Your task to perform on an android device: Show the shopping cart on newegg.com. Add "razer huntsman" to the cart on newegg.com Image 0: 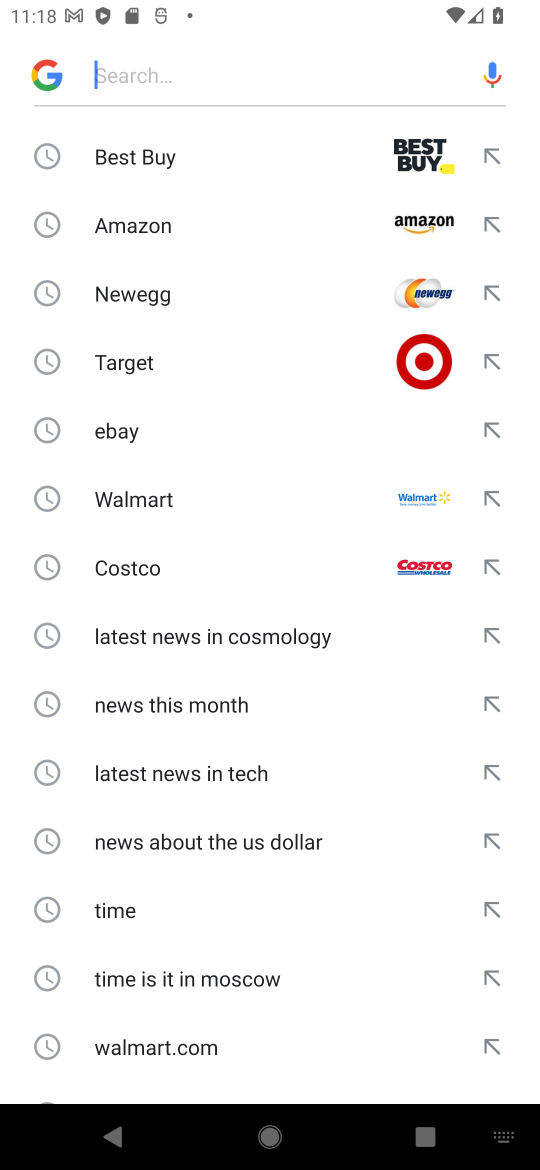
Step 0: click (117, 76)
Your task to perform on an android device: Show the shopping cart on newegg.com. Add "razer huntsman" to the cart on newegg.com Image 1: 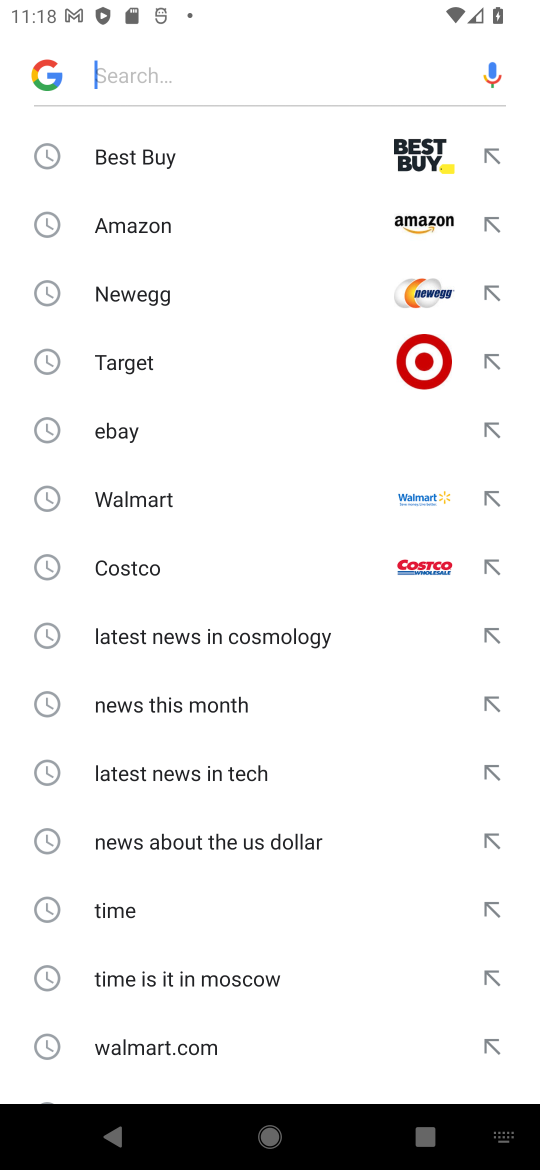
Step 1: type "newegg.com"
Your task to perform on an android device: Show the shopping cart on newegg.com. Add "razer huntsman" to the cart on newegg.com Image 2: 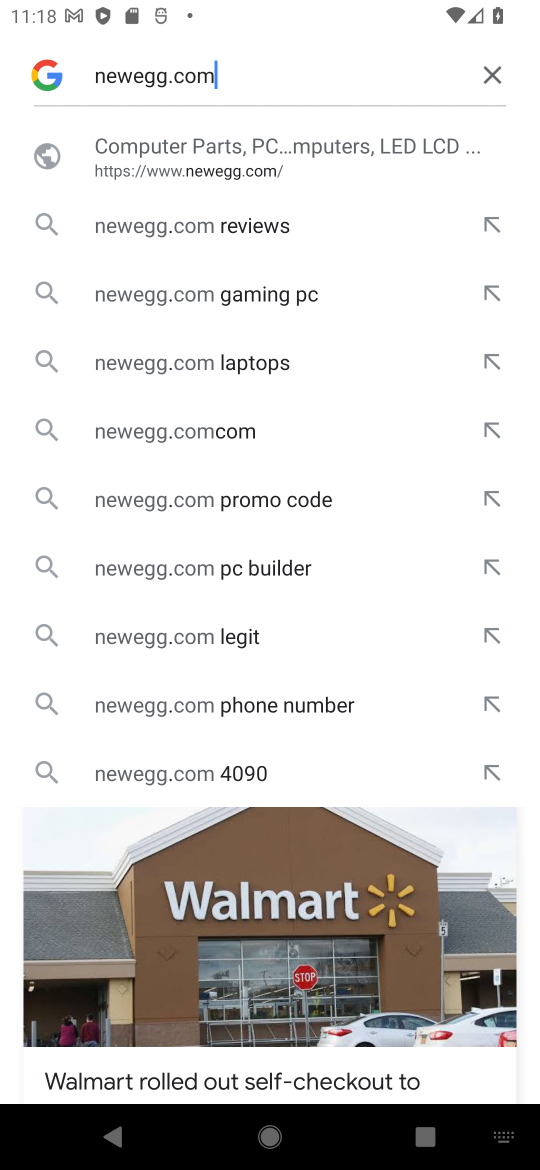
Step 2: click (161, 176)
Your task to perform on an android device: Show the shopping cart on newegg.com. Add "razer huntsman" to the cart on newegg.com Image 3: 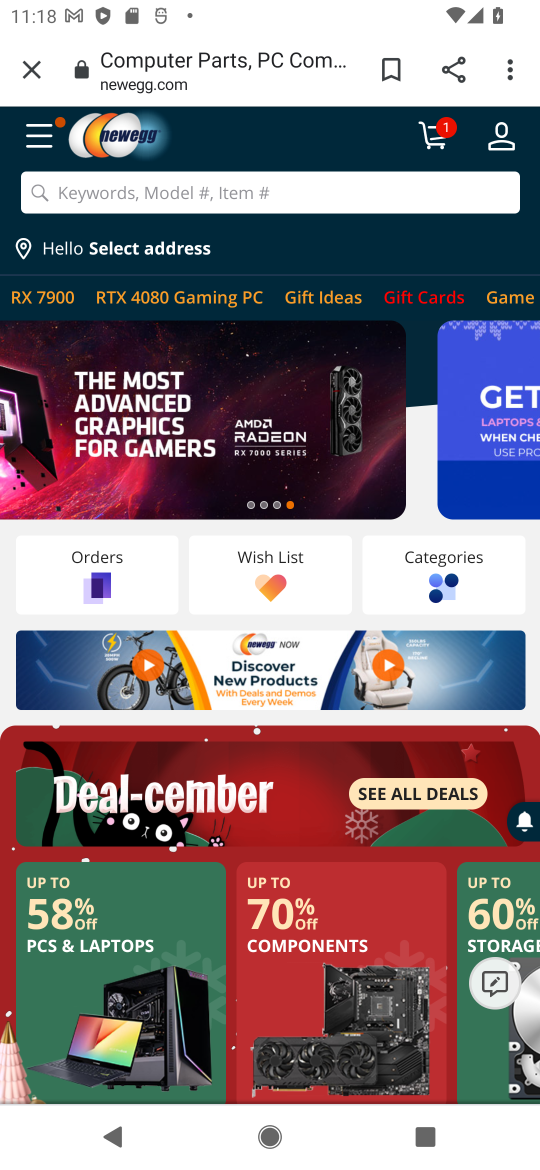
Step 3: click (426, 140)
Your task to perform on an android device: Show the shopping cart on newegg.com. Add "razer huntsman" to the cart on newegg.com Image 4: 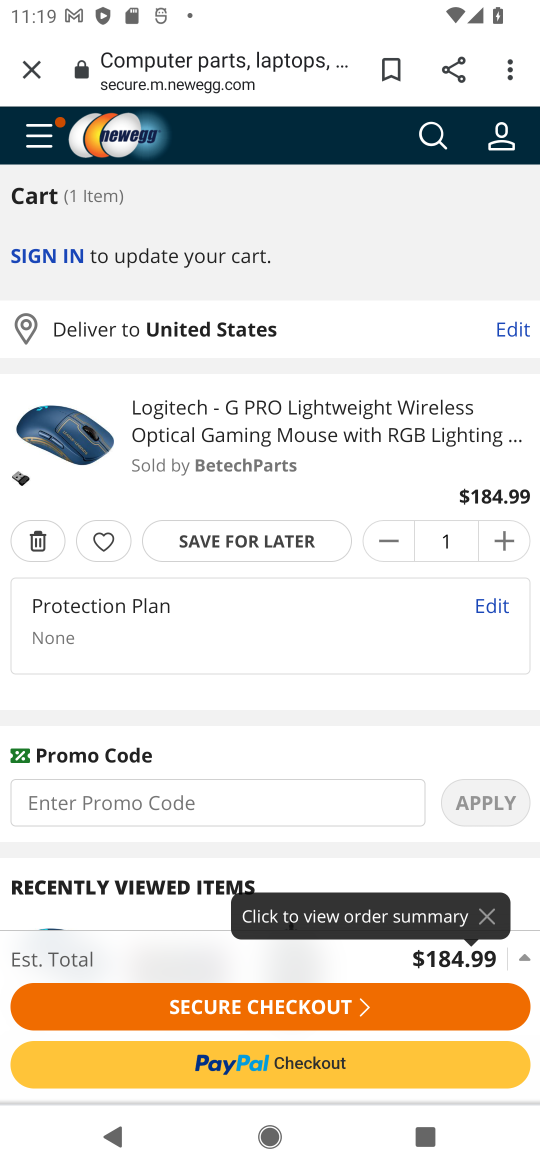
Step 4: click (432, 133)
Your task to perform on an android device: Show the shopping cart on newegg.com. Add "razer huntsman" to the cart on newegg.com Image 5: 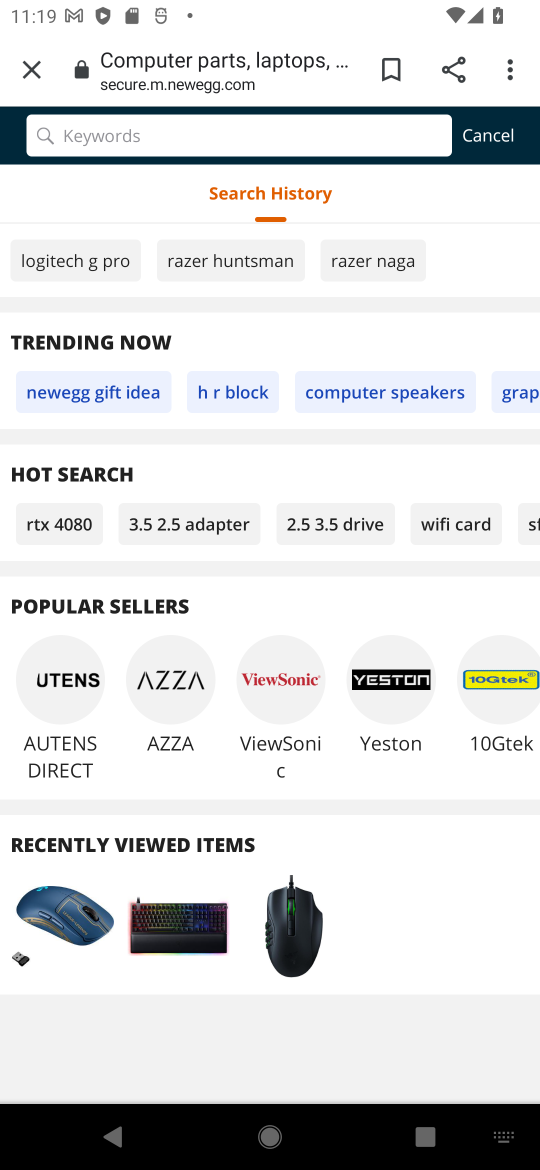
Step 5: type "razer huntsman"
Your task to perform on an android device: Show the shopping cart on newegg.com. Add "razer huntsman" to the cart on newegg.com Image 6: 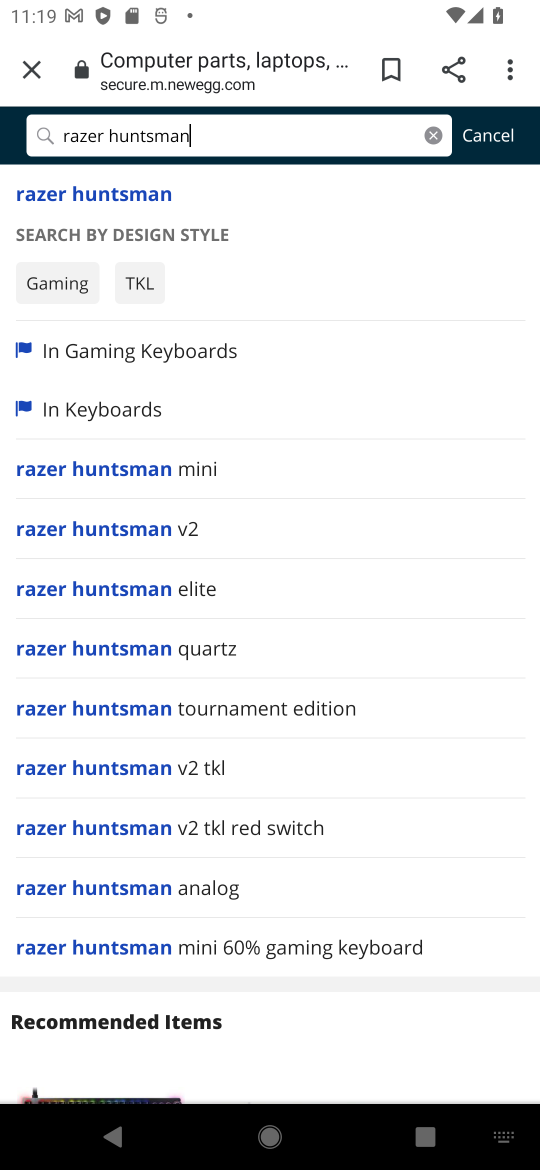
Step 6: click (108, 199)
Your task to perform on an android device: Show the shopping cart on newegg.com. Add "razer huntsman" to the cart on newegg.com Image 7: 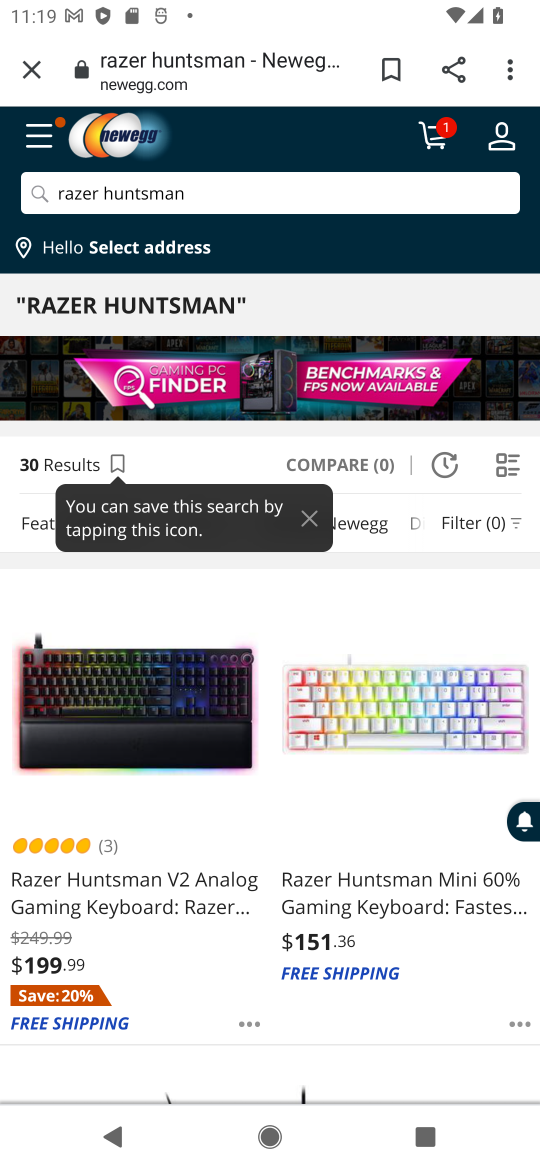
Step 7: click (103, 898)
Your task to perform on an android device: Show the shopping cart on newegg.com. Add "razer huntsman" to the cart on newegg.com Image 8: 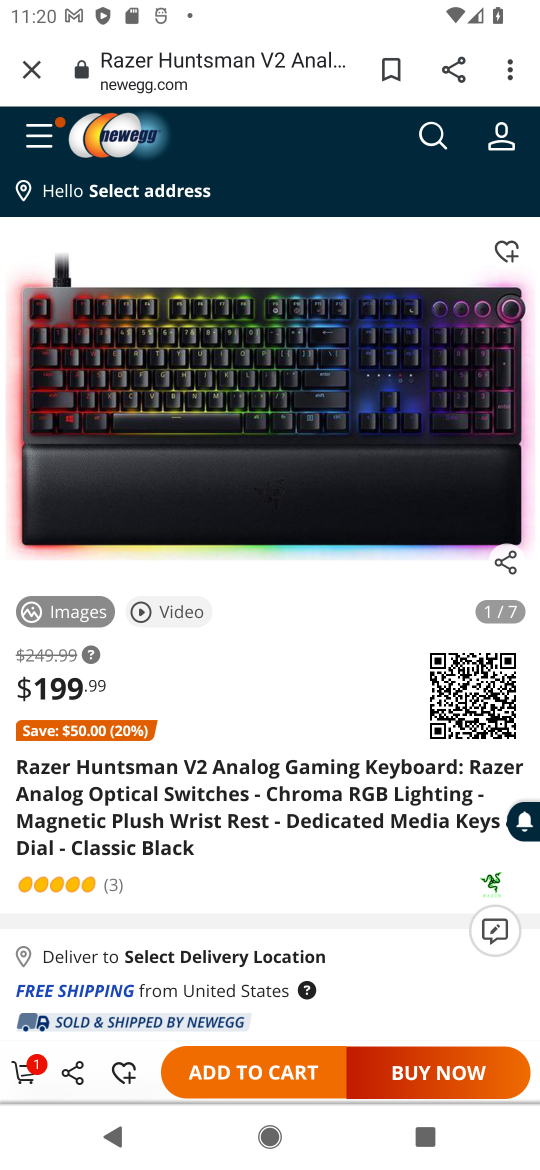
Step 8: click (270, 1072)
Your task to perform on an android device: Show the shopping cart on newegg.com. Add "razer huntsman" to the cart on newegg.com Image 9: 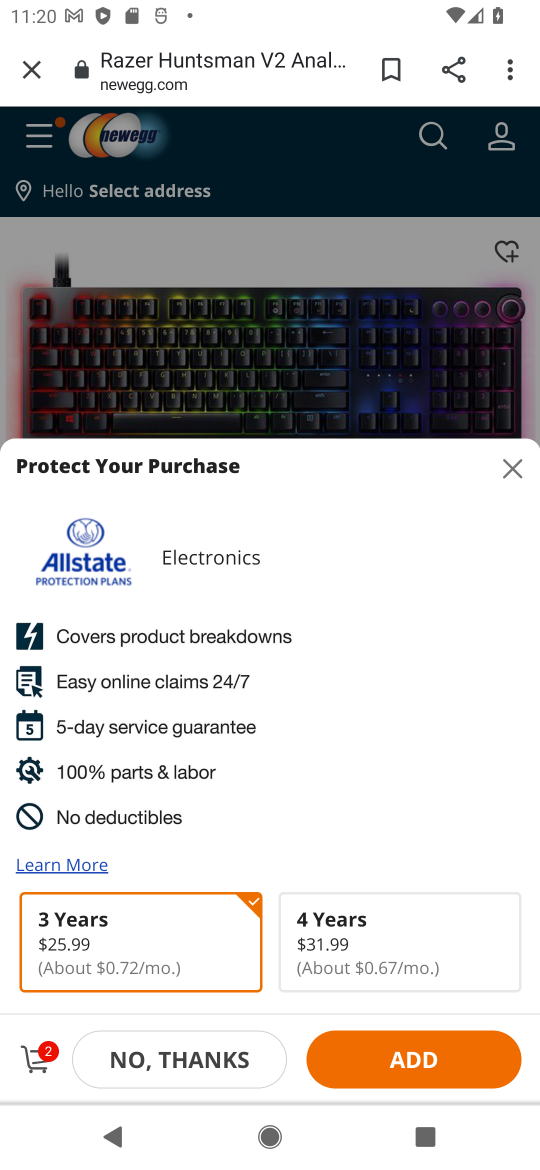
Step 9: task complete